Your task to perform on an android device: check the backup settings in the google photos Image 0: 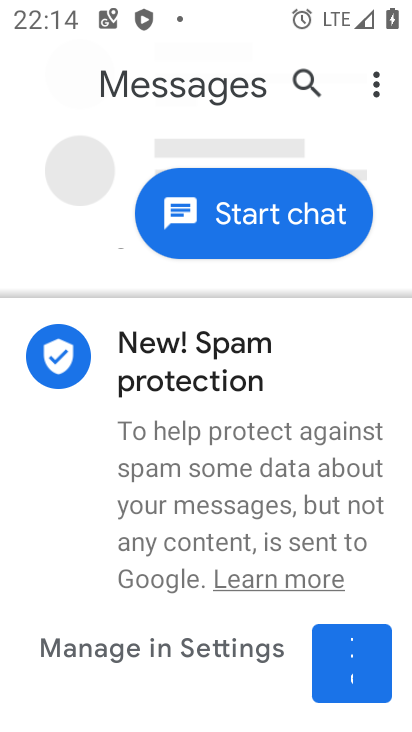
Step 0: press home button
Your task to perform on an android device: check the backup settings in the google photos Image 1: 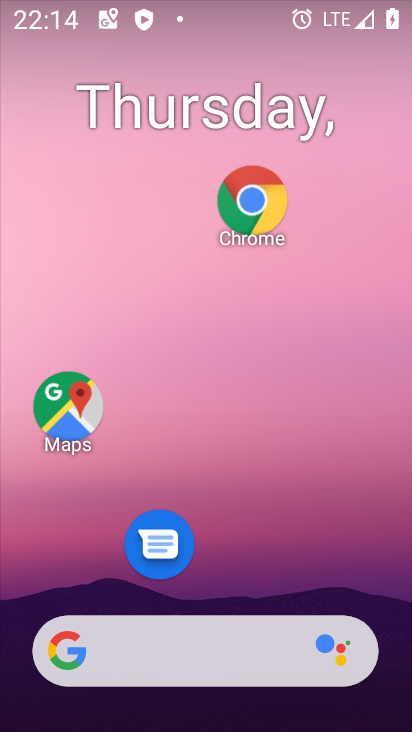
Step 1: drag from (300, 606) to (215, 12)
Your task to perform on an android device: check the backup settings in the google photos Image 2: 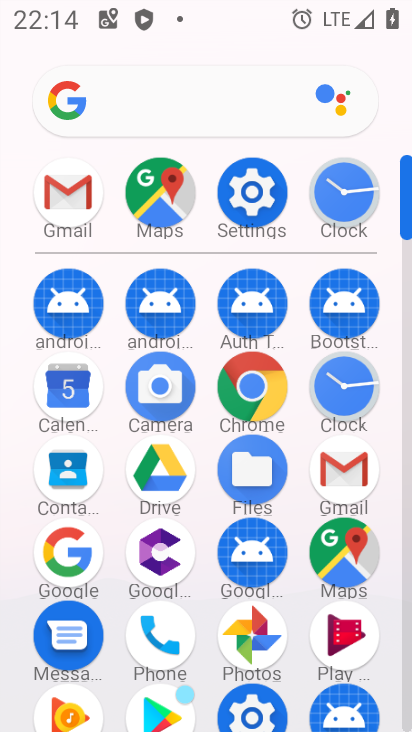
Step 2: click (255, 651)
Your task to perform on an android device: check the backup settings in the google photos Image 3: 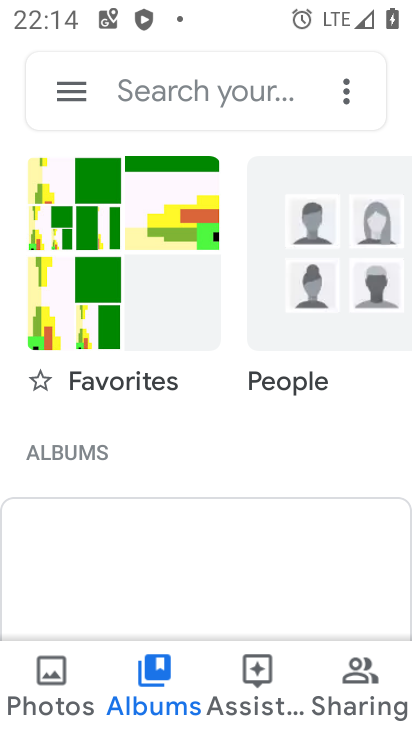
Step 3: click (63, 83)
Your task to perform on an android device: check the backup settings in the google photos Image 4: 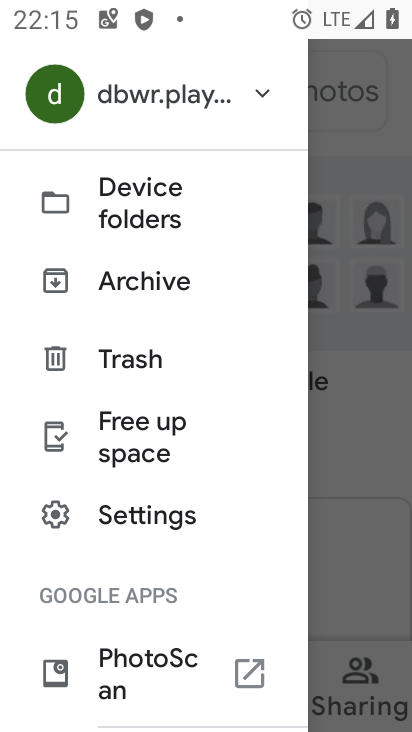
Step 4: click (129, 536)
Your task to perform on an android device: check the backup settings in the google photos Image 5: 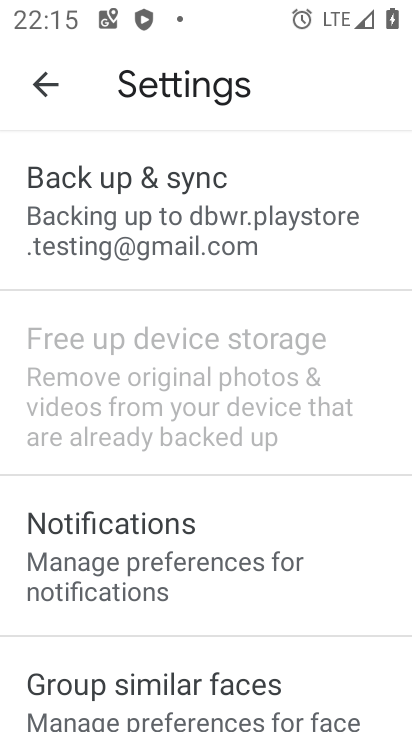
Step 5: click (177, 173)
Your task to perform on an android device: check the backup settings in the google photos Image 6: 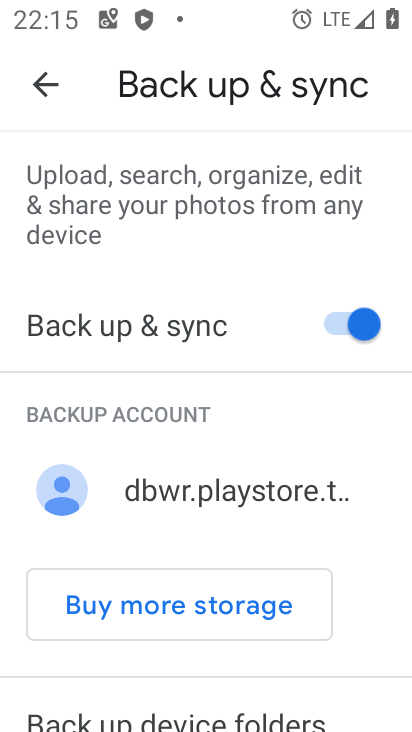
Step 6: task complete